Your task to perform on an android device: Open my contact list Image 0: 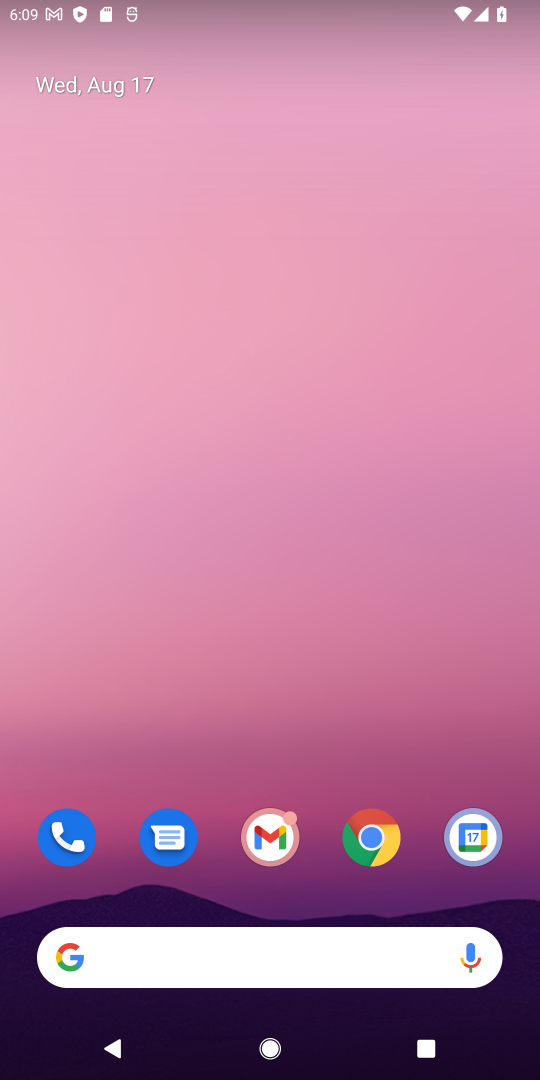
Step 0: drag from (264, 895) to (327, 11)
Your task to perform on an android device: Open my contact list Image 1: 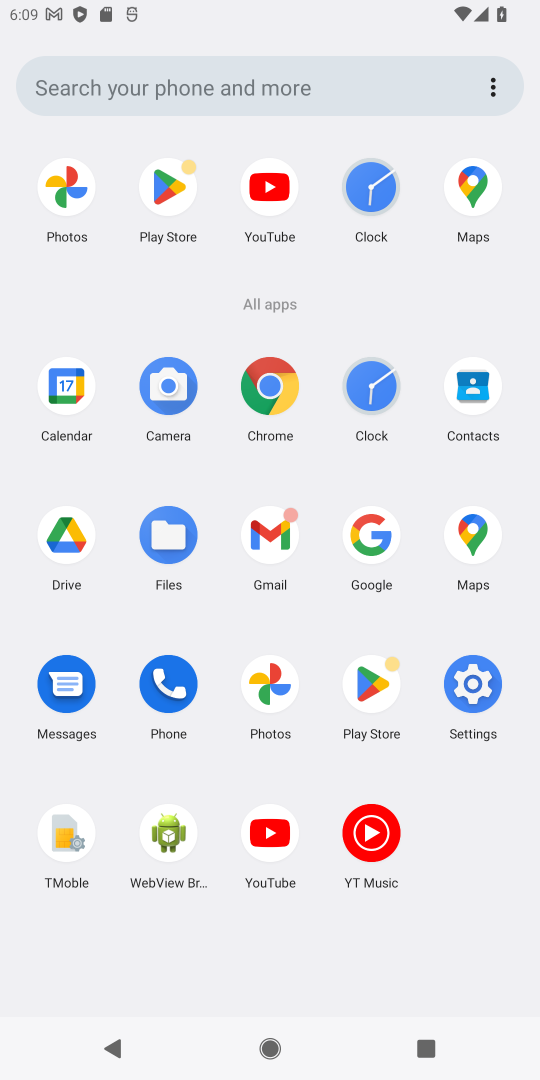
Step 1: click (468, 401)
Your task to perform on an android device: Open my contact list Image 2: 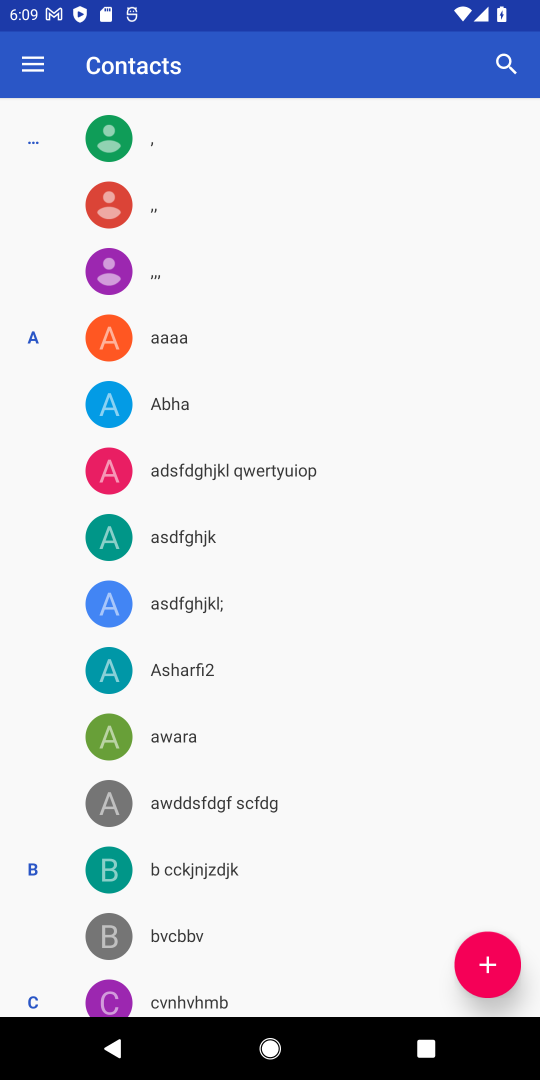
Step 2: task complete